Your task to perform on an android device: open the mobile data screen to see how much data has been used Image 0: 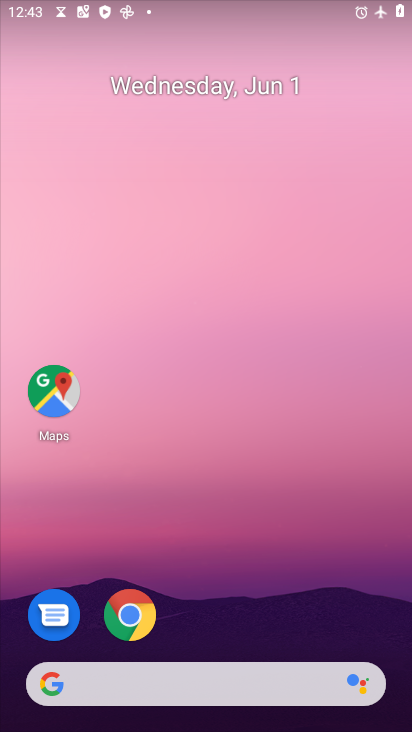
Step 0: drag from (324, 542) to (329, 107)
Your task to perform on an android device: open the mobile data screen to see how much data has been used Image 1: 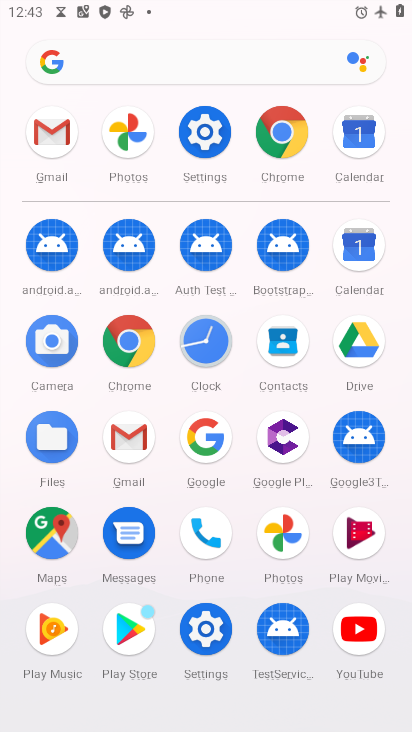
Step 1: click (213, 147)
Your task to perform on an android device: open the mobile data screen to see how much data has been used Image 2: 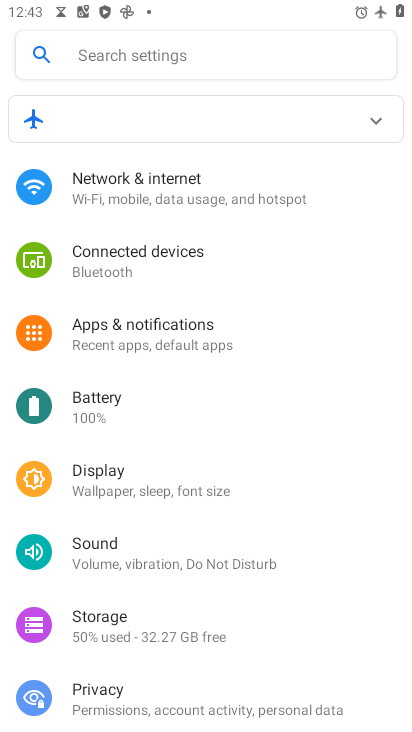
Step 2: click (192, 204)
Your task to perform on an android device: open the mobile data screen to see how much data has been used Image 3: 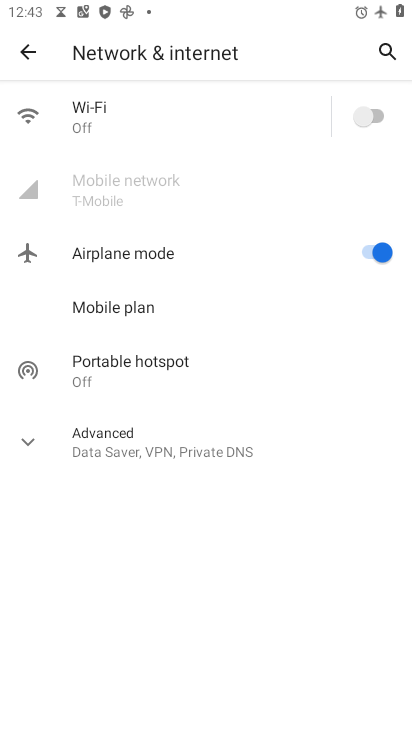
Step 3: click (53, 180)
Your task to perform on an android device: open the mobile data screen to see how much data has been used Image 4: 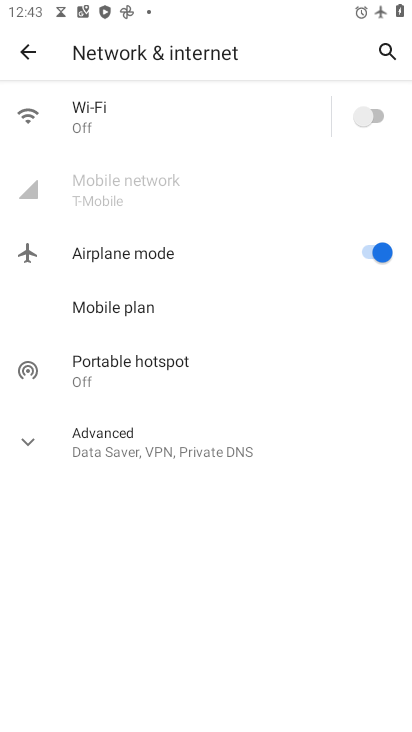
Step 4: task complete